Your task to perform on an android device: Toggle the flashlight Image 0: 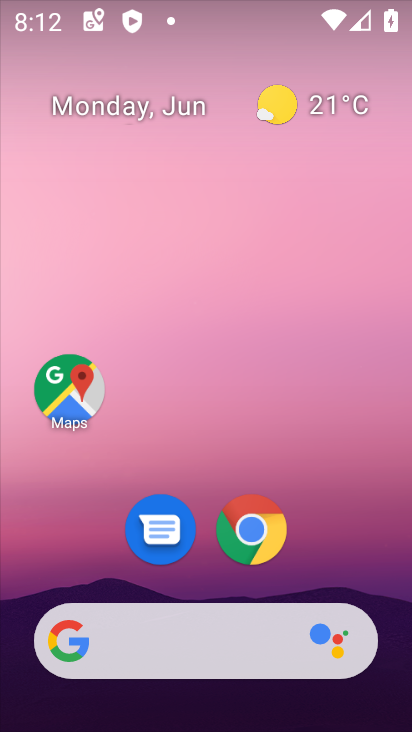
Step 0: drag from (26, 589) to (289, 206)
Your task to perform on an android device: Toggle the flashlight Image 1: 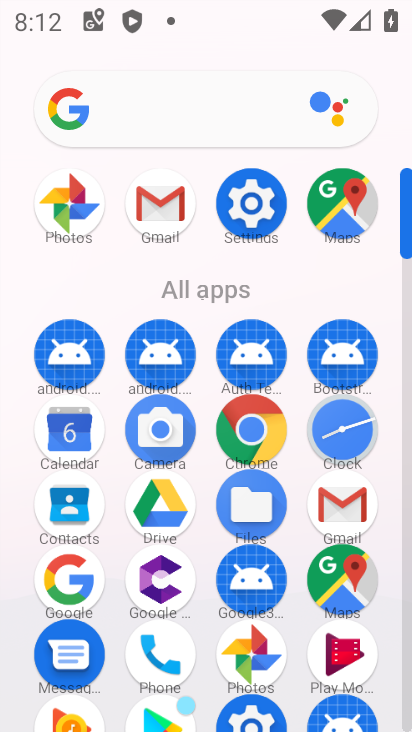
Step 1: click (265, 210)
Your task to perform on an android device: Toggle the flashlight Image 2: 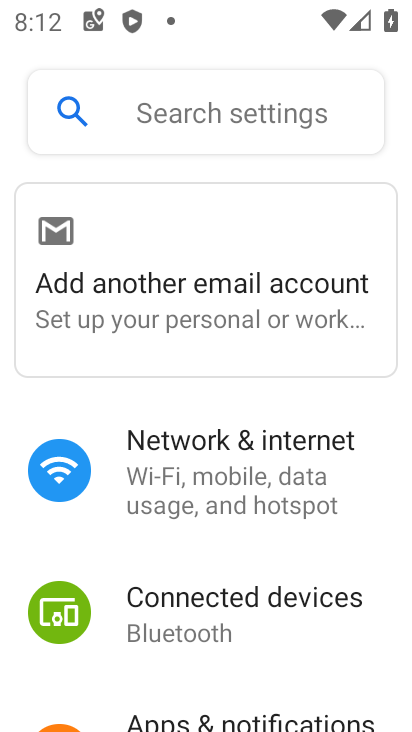
Step 2: task complete